Your task to perform on an android device: Open maps Image 0: 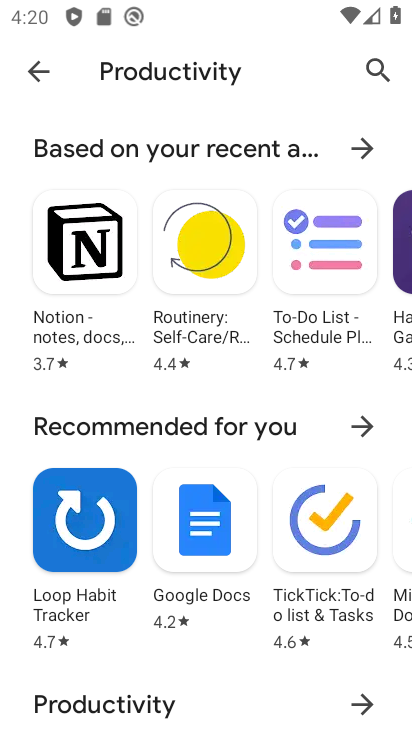
Step 0: press home button
Your task to perform on an android device: Open maps Image 1: 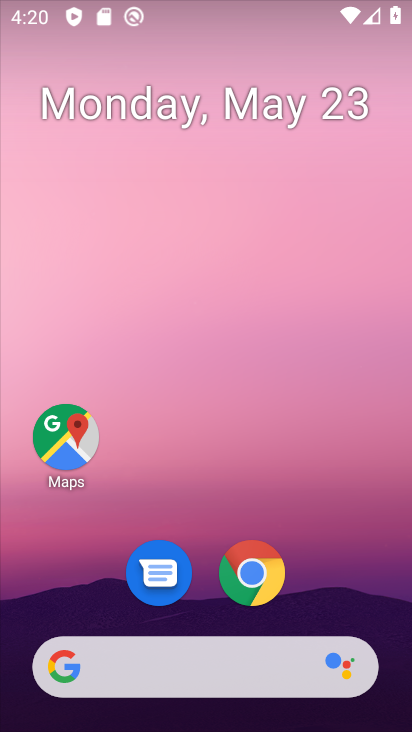
Step 1: drag from (229, 725) to (213, 182)
Your task to perform on an android device: Open maps Image 2: 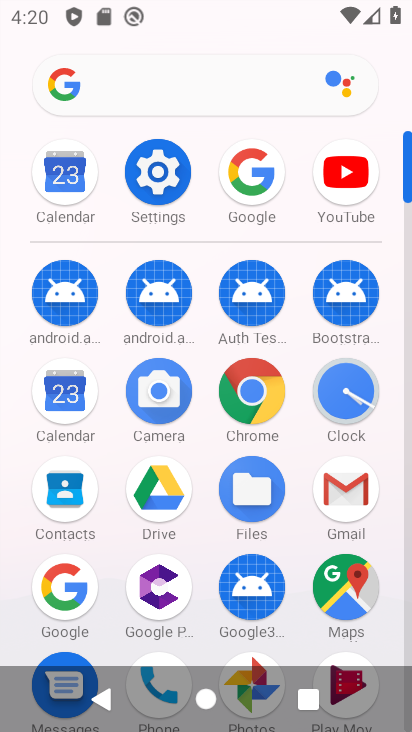
Step 2: click (352, 589)
Your task to perform on an android device: Open maps Image 3: 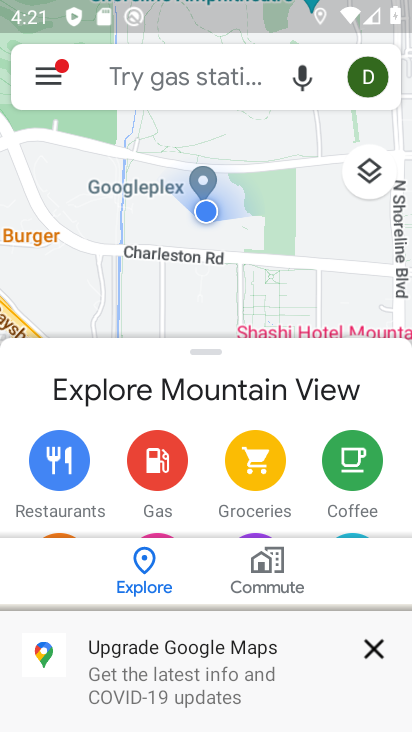
Step 3: task complete